Your task to perform on an android device: delete a single message in the gmail app Image 0: 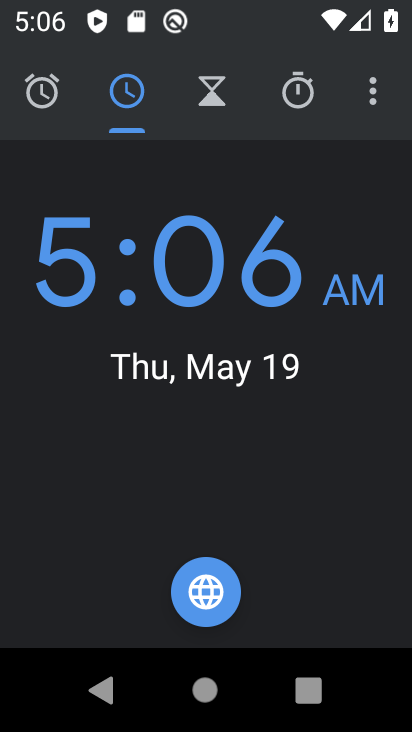
Step 0: press back button
Your task to perform on an android device: delete a single message in the gmail app Image 1: 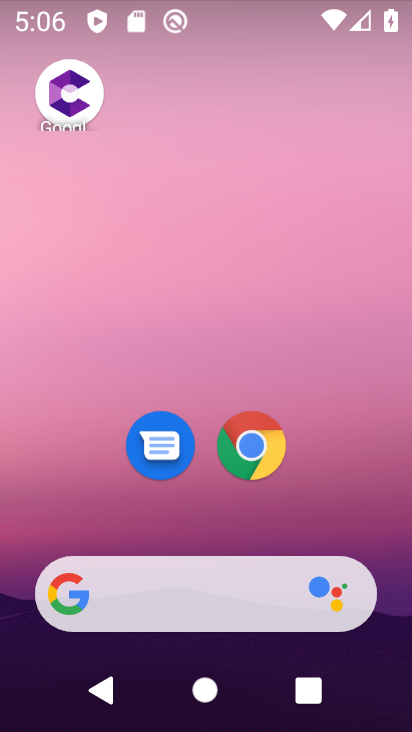
Step 1: drag from (272, 435) to (87, 5)
Your task to perform on an android device: delete a single message in the gmail app Image 2: 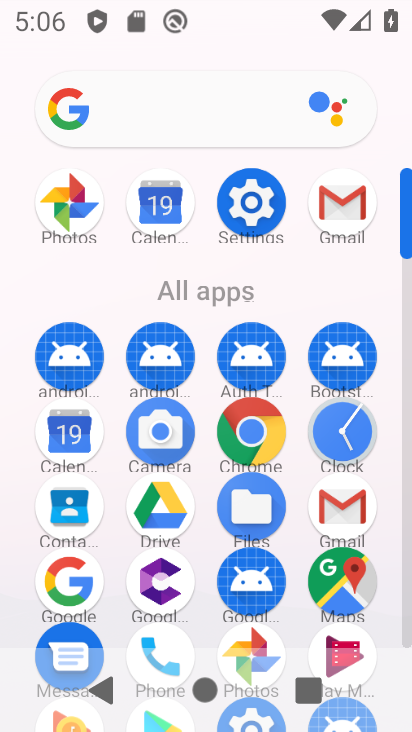
Step 2: click (335, 501)
Your task to perform on an android device: delete a single message in the gmail app Image 3: 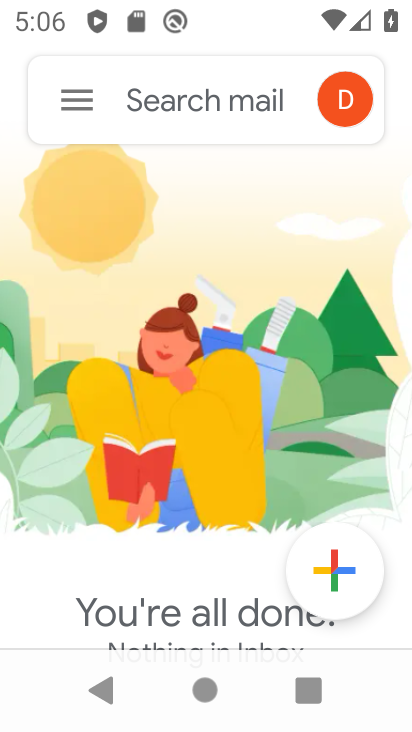
Step 3: click (75, 98)
Your task to perform on an android device: delete a single message in the gmail app Image 4: 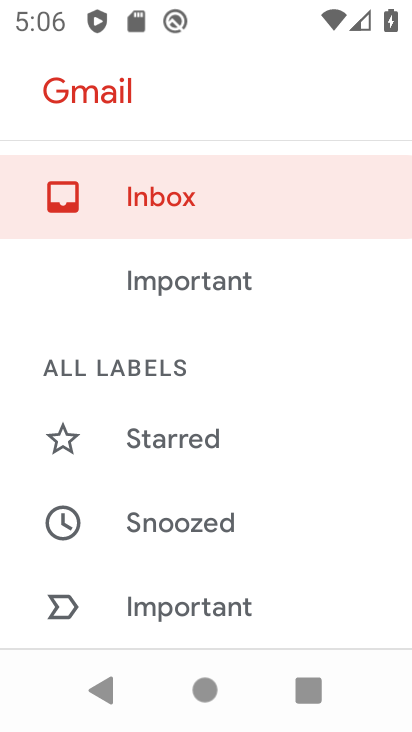
Step 4: drag from (229, 489) to (213, 104)
Your task to perform on an android device: delete a single message in the gmail app Image 5: 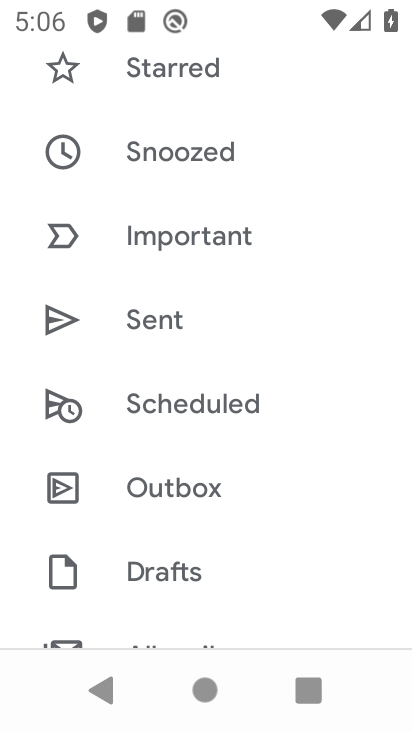
Step 5: drag from (285, 502) to (241, 83)
Your task to perform on an android device: delete a single message in the gmail app Image 6: 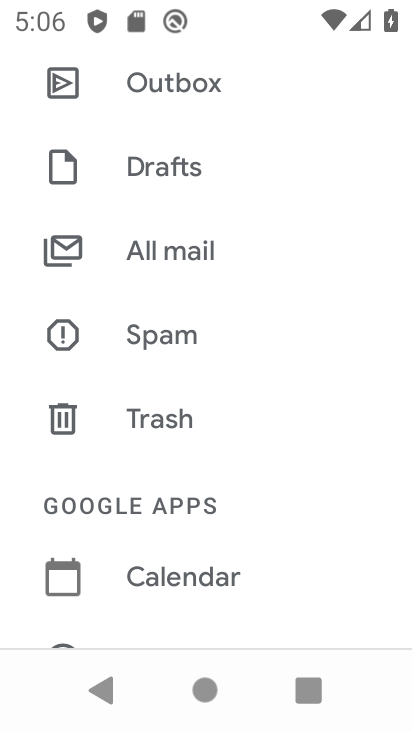
Step 6: drag from (309, 485) to (241, 75)
Your task to perform on an android device: delete a single message in the gmail app Image 7: 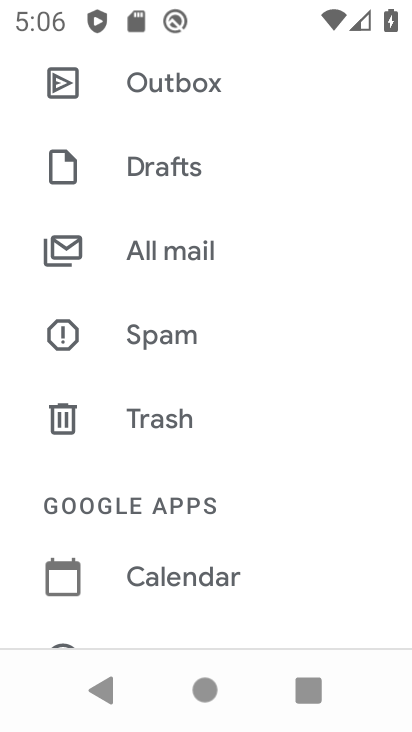
Step 7: click (157, 251)
Your task to perform on an android device: delete a single message in the gmail app Image 8: 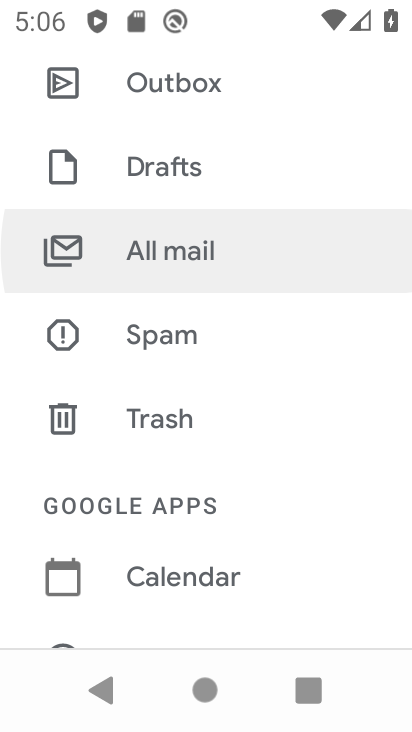
Step 8: click (157, 249)
Your task to perform on an android device: delete a single message in the gmail app Image 9: 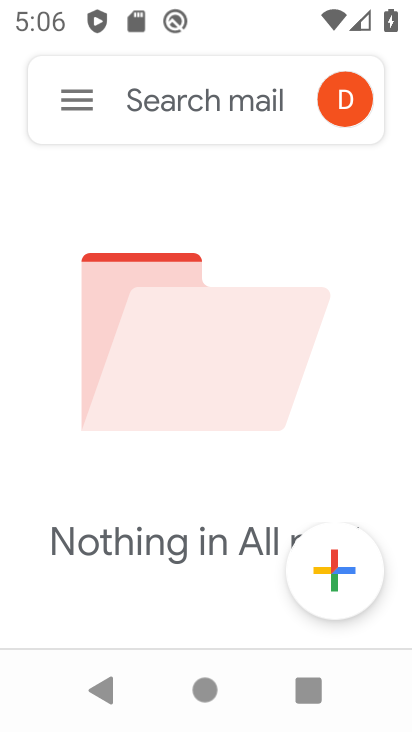
Step 9: task complete